Your task to perform on an android device: search for starred emails in the gmail app Image 0: 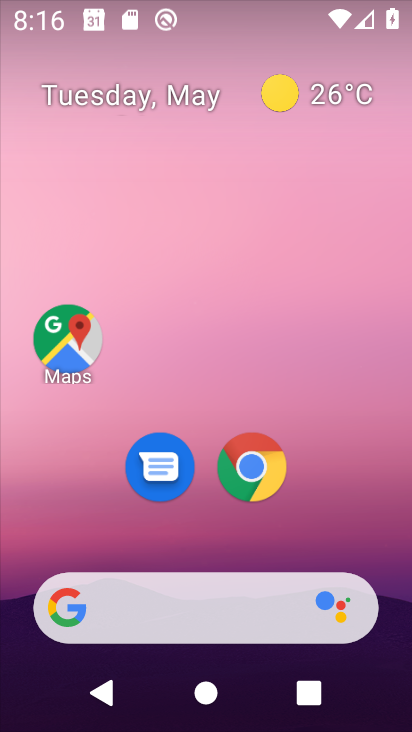
Step 0: drag from (398, 692) to (359, 225)
Your task to perform on an android device: search for starred emails in the gmail app Image 1: 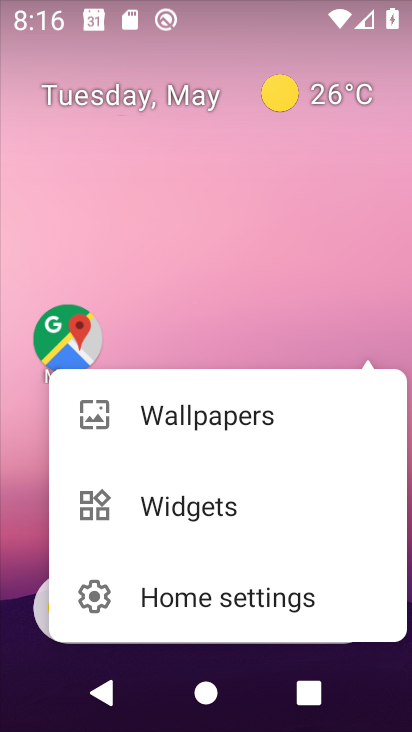
Step 1: press home button
Your task to perform on an android device: search for starred emails in the gmail app Image 2: 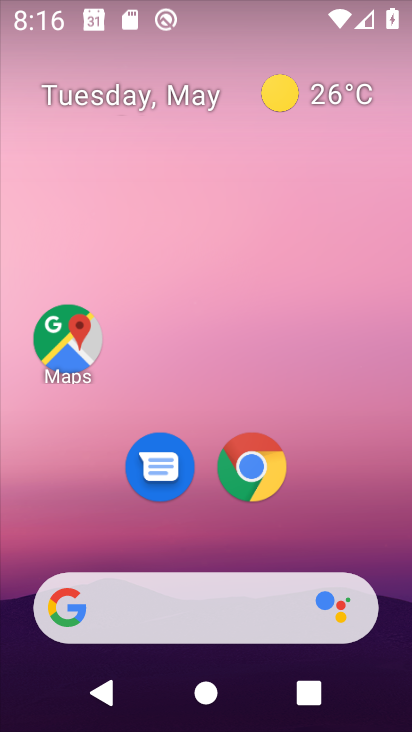
Step 2: drag from (391, 707) to (370, 270)
Your task to perform on an android device: search for starred emails in the gmail app Image 3: 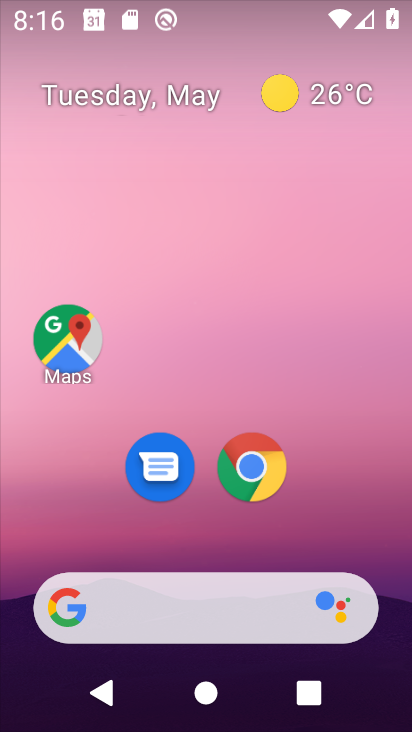
Step 3: drag from (396, 687) to (346, 157)
Your task to perform on an android device: search for starred emails in the gmail app Image 4: 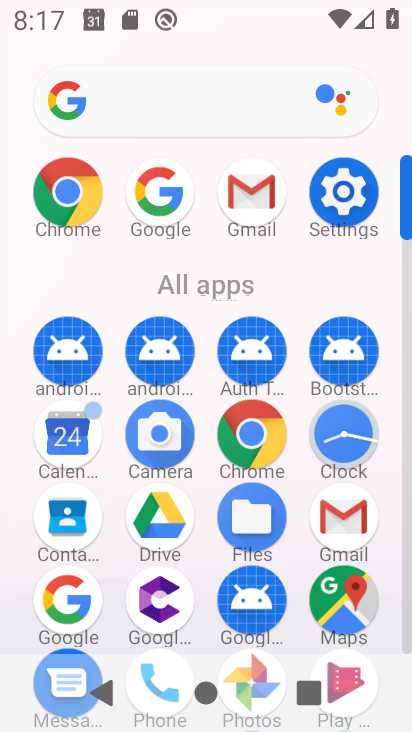
Step 4: click (265, 192)
Your task to perform on an android device: search for starred emails in the gmail app Image 5: 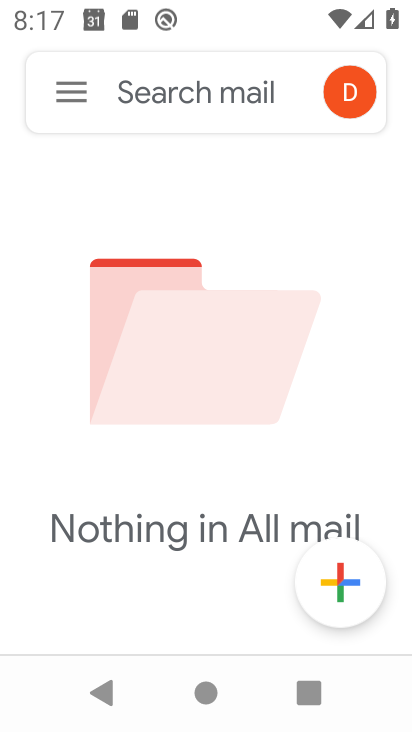
Step 5: click (71, 83)
Your task to perform on an android device: search for starred emails in the gmail app Image 6: 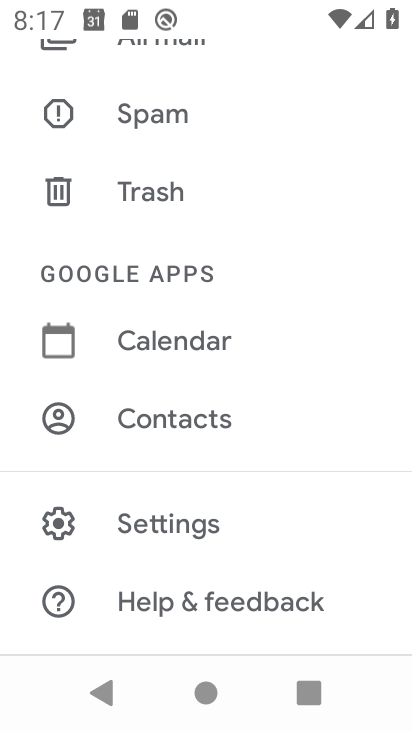
Step 6: drag from (302, 93) to (407, 542)
Your task to perform on an android device: search for starred emails in the gmail app Image 7: 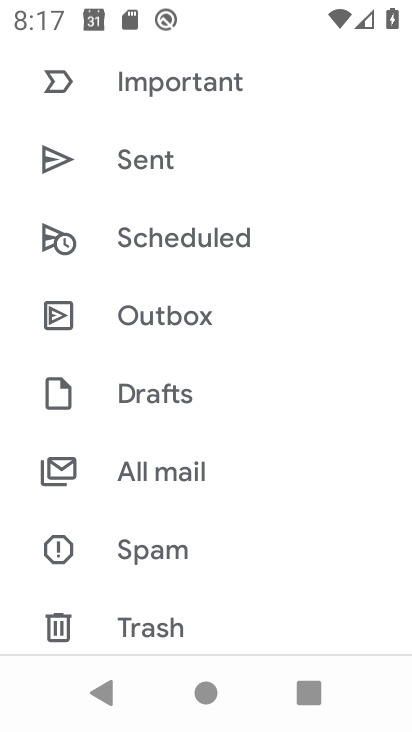
Step 7: drag from (289, 136) to (325, 593)
Your task to perform on an android device: search for starred emails in the gmail app Image 8: 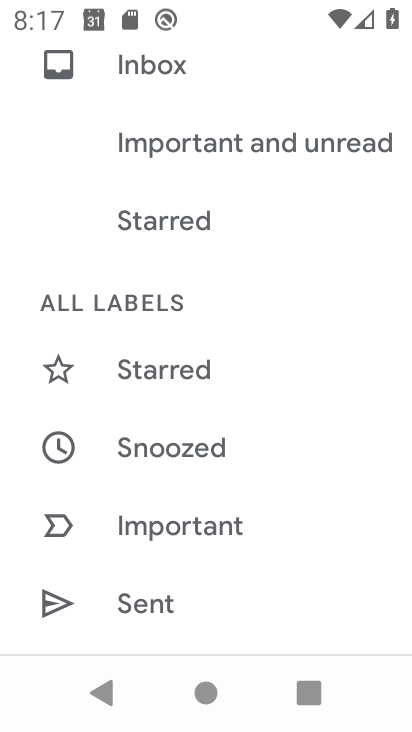
Step 8: click (148, 364)
Your task to perform on an android device: search for starred emails in the gmail app Image 9: 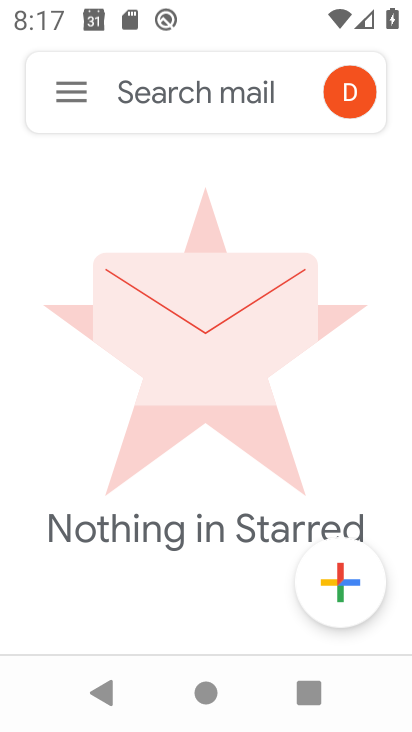
Step 9: task complete